Your task to perform on an android device: turn off data saver in the chrome app Image 0: 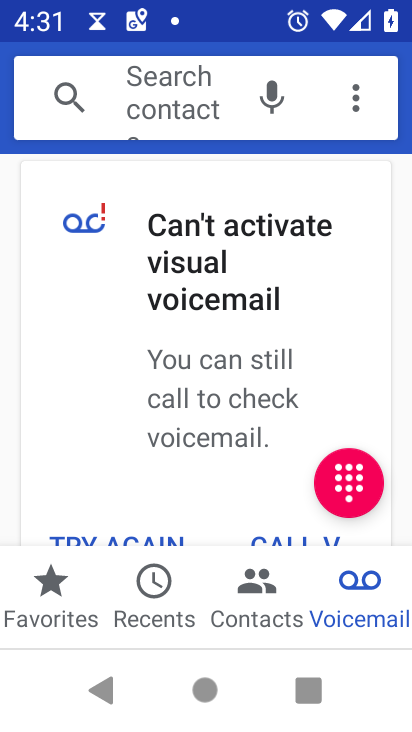
Step 0: press home button
Your task to perform on an android device: turn off data saver in the chrome app Image 1: 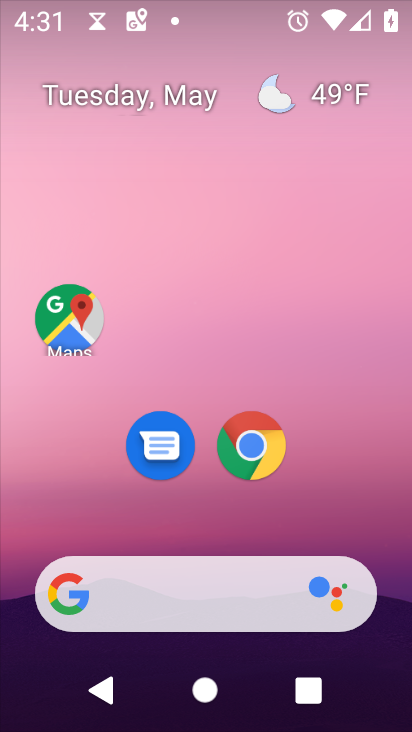
Step 1: drag from (302, 623) to (314, 0)
Your task to perform on an android device: turn off data saver in the chrome app Image 2: 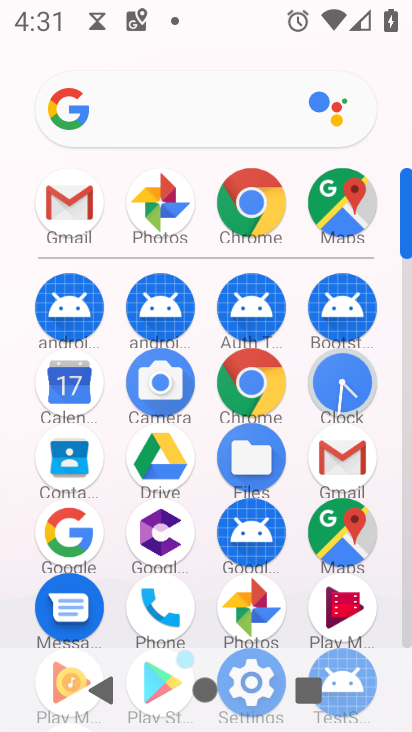
Step 2: click (230, 402)
Your task to perform on an android device: turn off data saver in the chrome app Image 3: 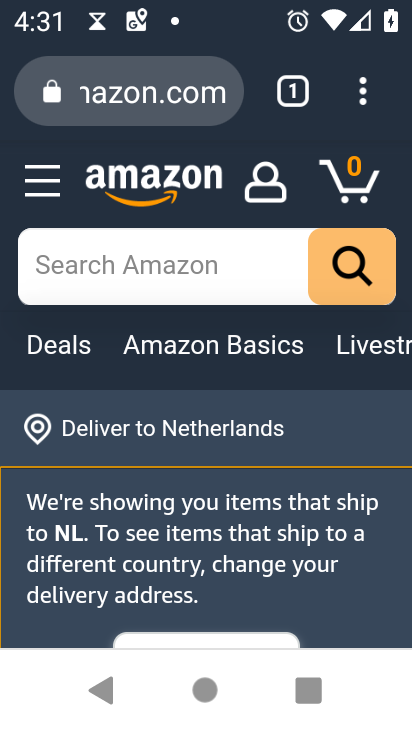
Step 3: click (367, 88)
Your task to perform on an android device: turn off data saver in the chrome app Image 4: 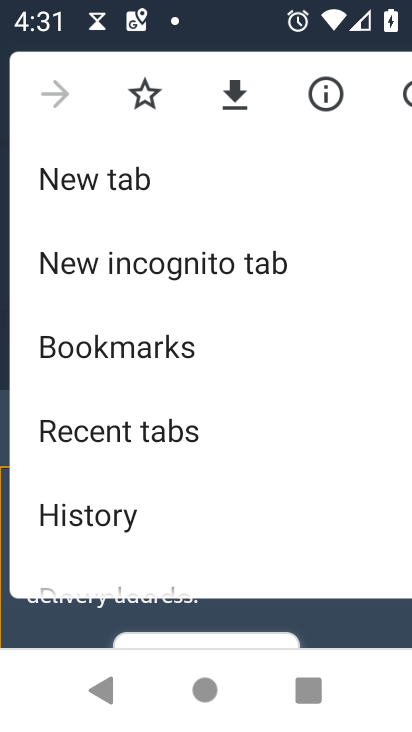
Step 4: drag from (244, 542) to (288, 134)
Your task to perform on an android device: turn off data saver in the chrome app Image 5: 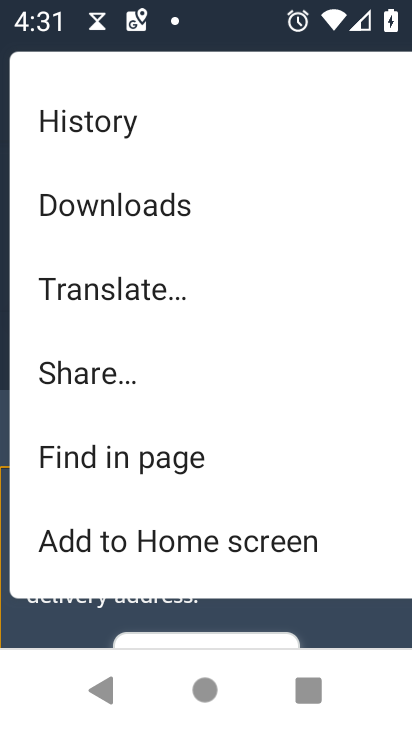
Step 5: drag from (211, 542) to (278, 110)
Your task to perform on an android device: turn off data saver in the chrome app Image 6: 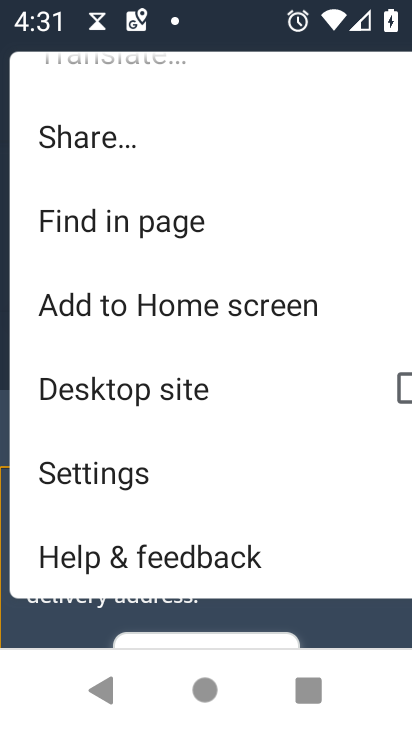
Step 6: click (151, 468)
Your task to perform on an android device: turn off data saver in the chrome app Image 7: 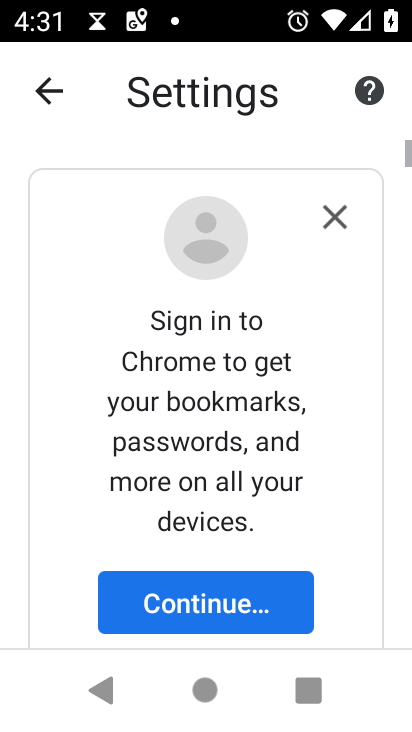
Step 7: drag from (332, 570) to (359, 22)
Your task to perform on an android device: turn off data saver in the chrome app Image 8: 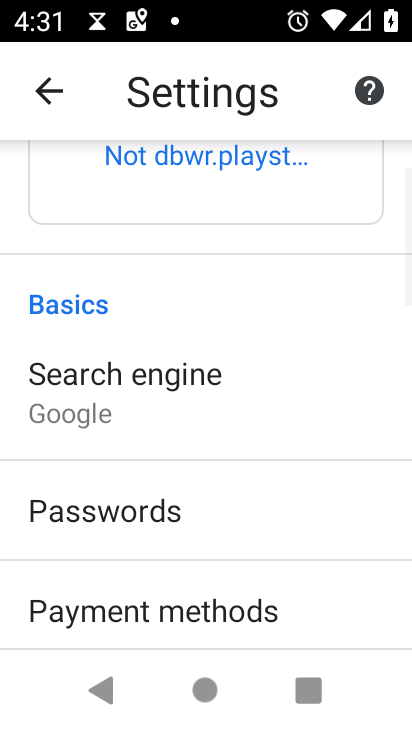
Step 8: drag from (325, 618) to (309, 126)
Your task to perform on an android device: turn off data saver in the chrome app Image 9: 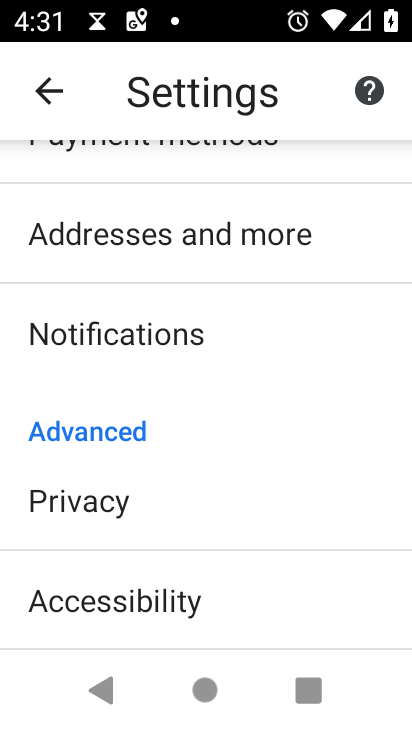
Step 9: drag from (277, 605) to (325, 200)
Your task to perform on an android device: turn off data saver in the chrome app Image 10: 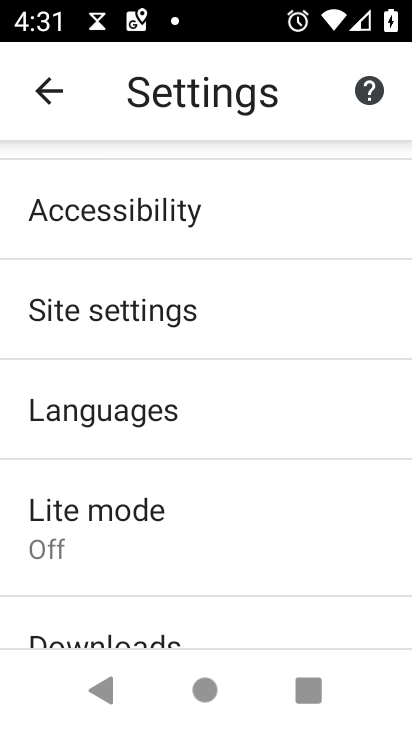
Step 10: click (145, 527)
Your task to perform on an android device: turn off data saver in the chrome app Image 11: 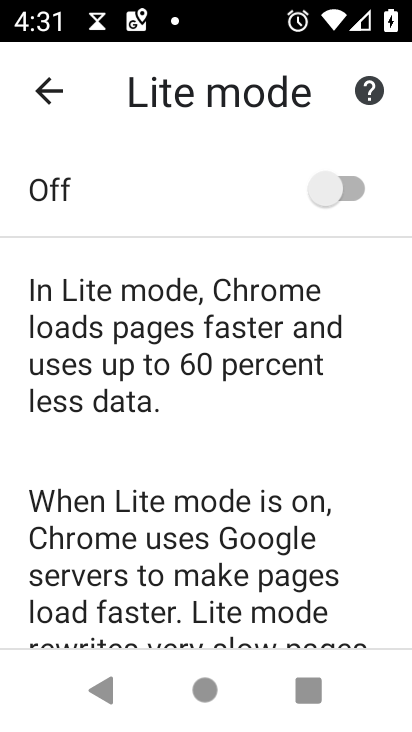
Step 11: task complete